Your task to perform on an android device: turn off wifi Image 0: 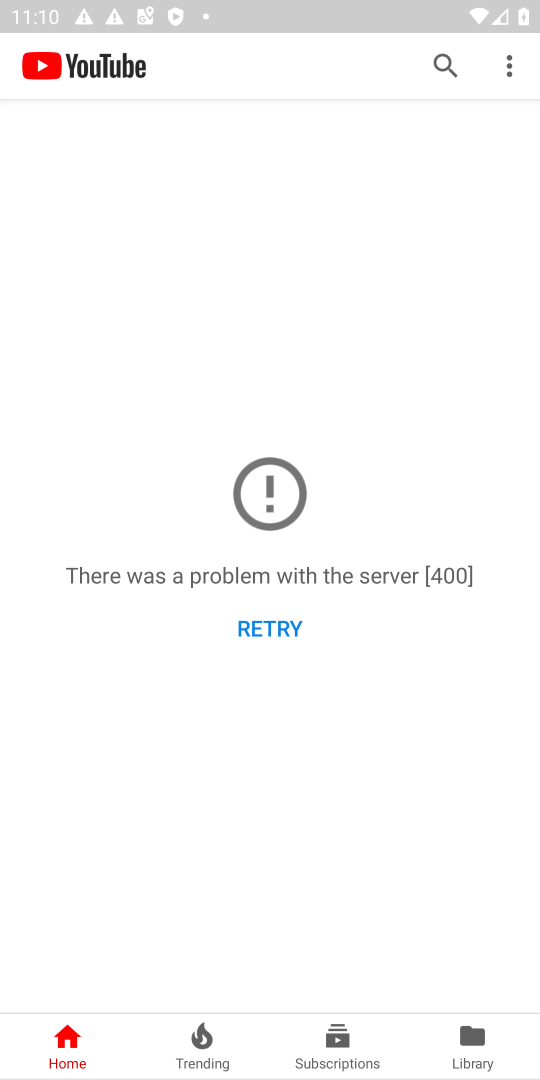
Step 0: press home button
Your task to perform on an android device: turn off wifi Image 1: 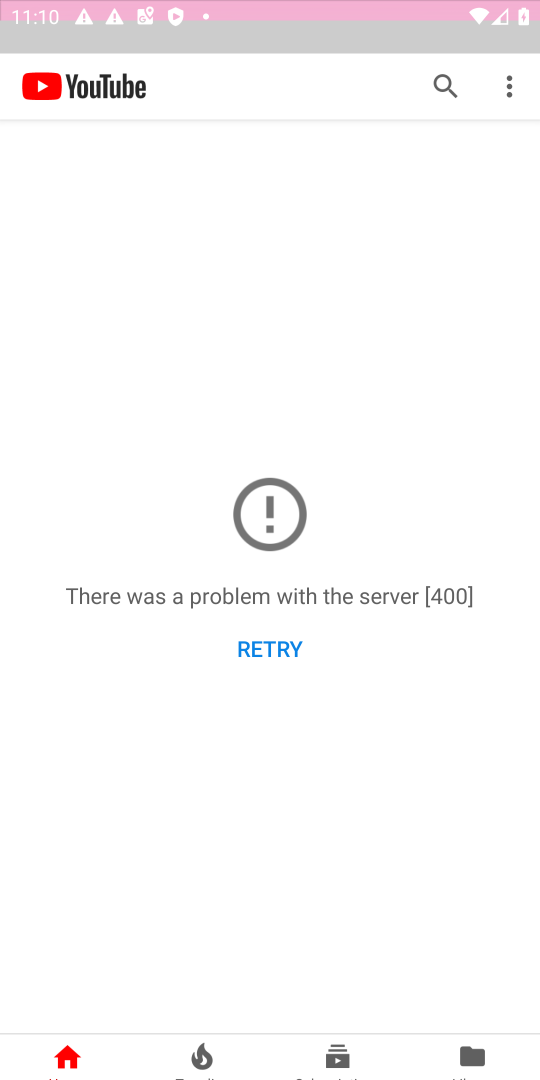
Step 1: press home button
Your task to perform on an android device: turn off wifi Image 2: 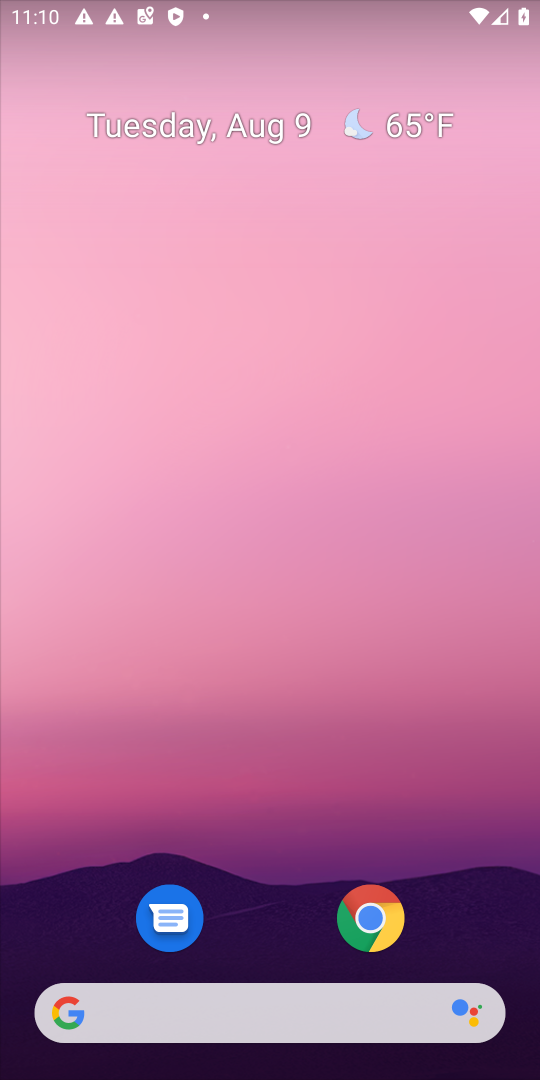
Step 2: press home button
Your task to perform on an android device: turn off wifi Image 3: 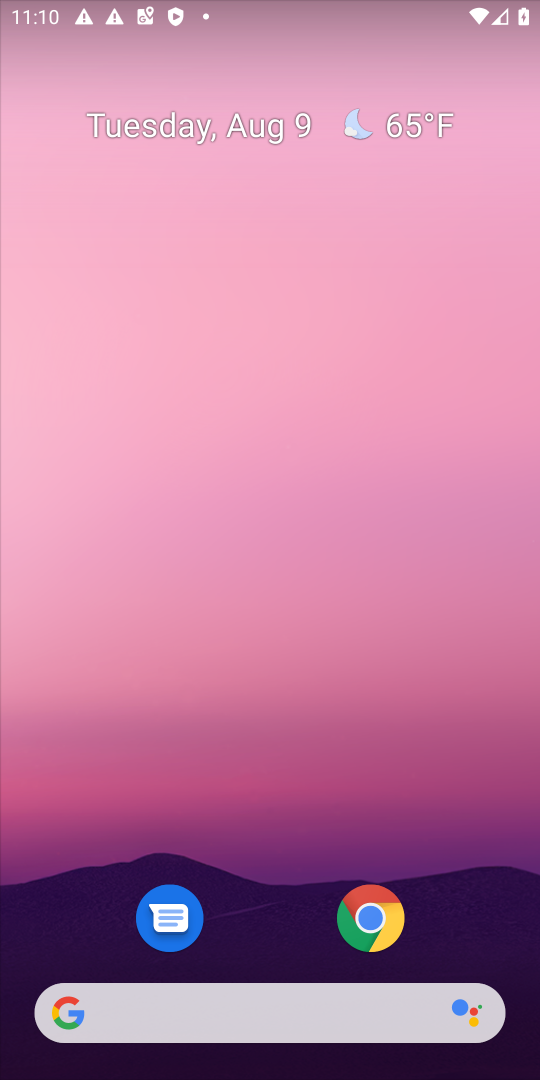
Step 3: drag from (245, 451) to (273, 201)
Your task to perform on an android device: turn off wifi Image 4: 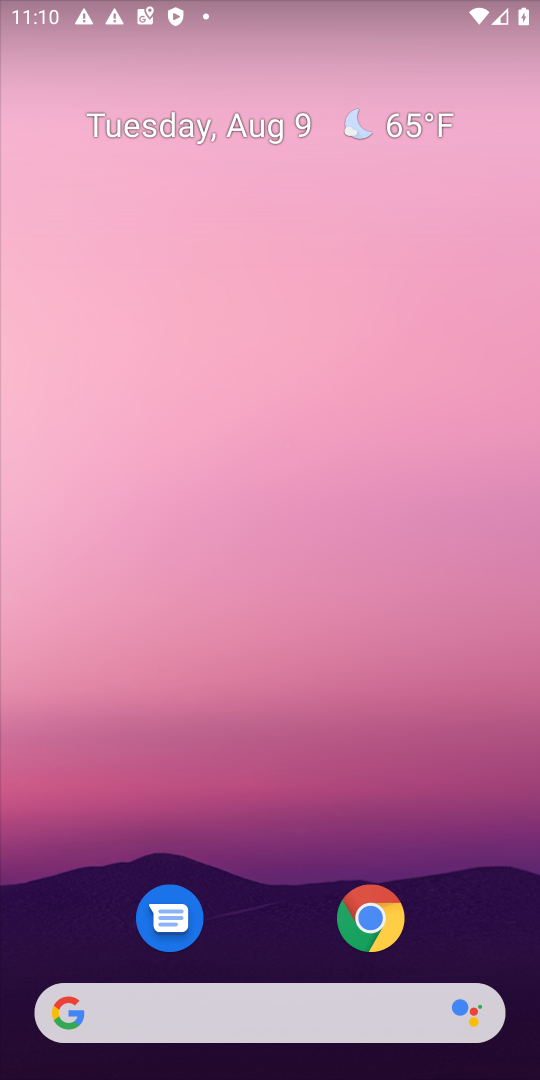
Step 4: drag from (271, 934) to (249, 184)
Your task to perform on an android device: turn off wifi Image 5: 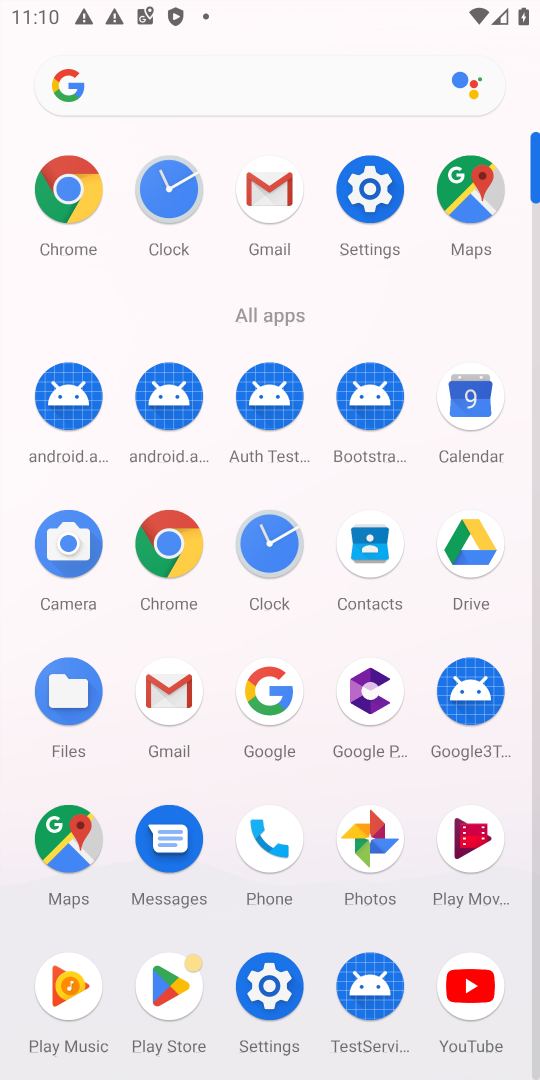
Step 5: click (278, 986)
Your task to perform on an android device: turn off wifi Image 6: 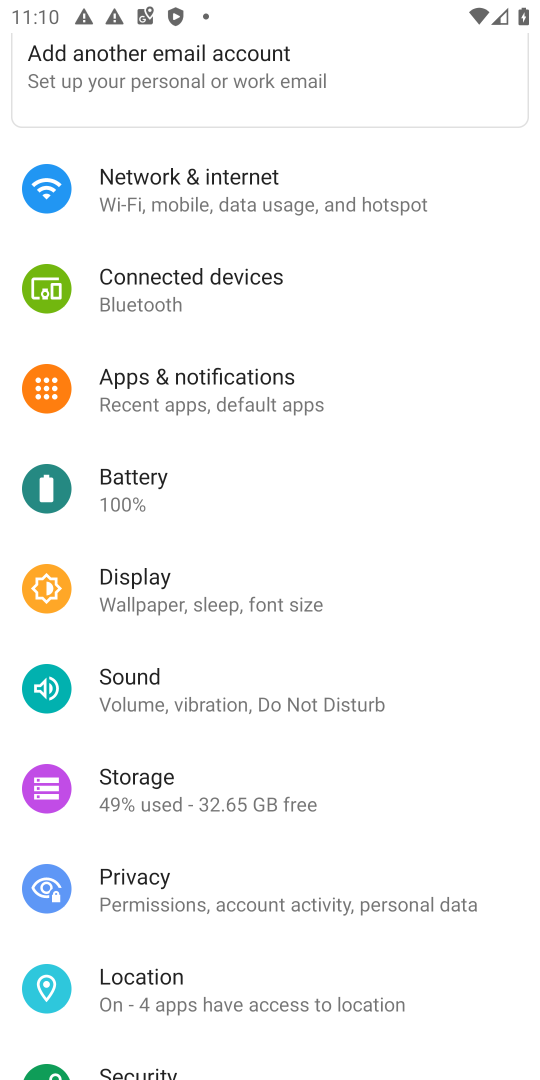
Step 6: click (213, 202)
Your task to perform on an android device: turn off wifi Image 7: 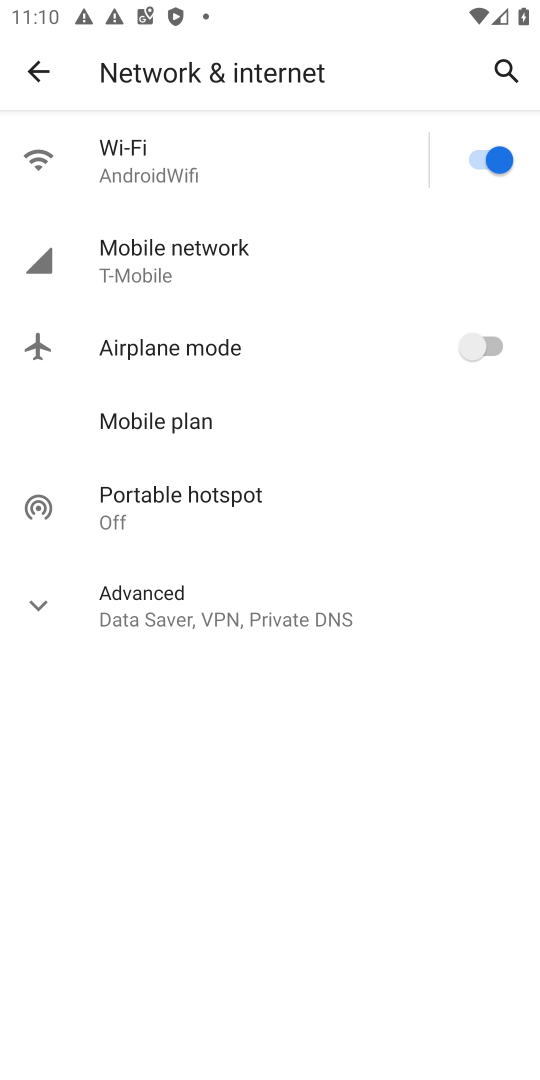
Step 7: click (257, 155)
Your task to perform on an android device: turn off wifi Image 8: 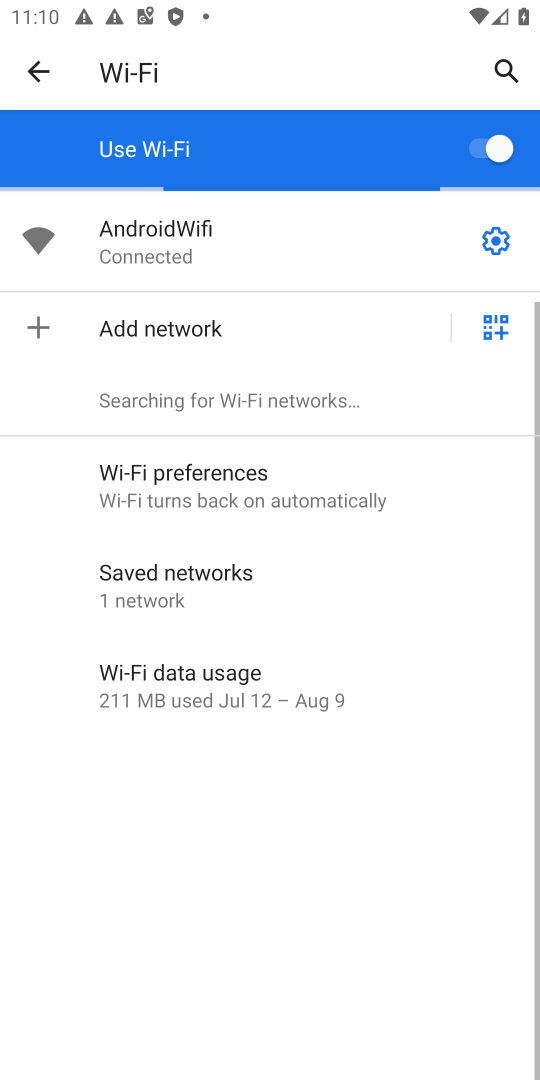
Step 8: click (469, 136)
Your task to perform on an android device: turn off wifi Image 9: 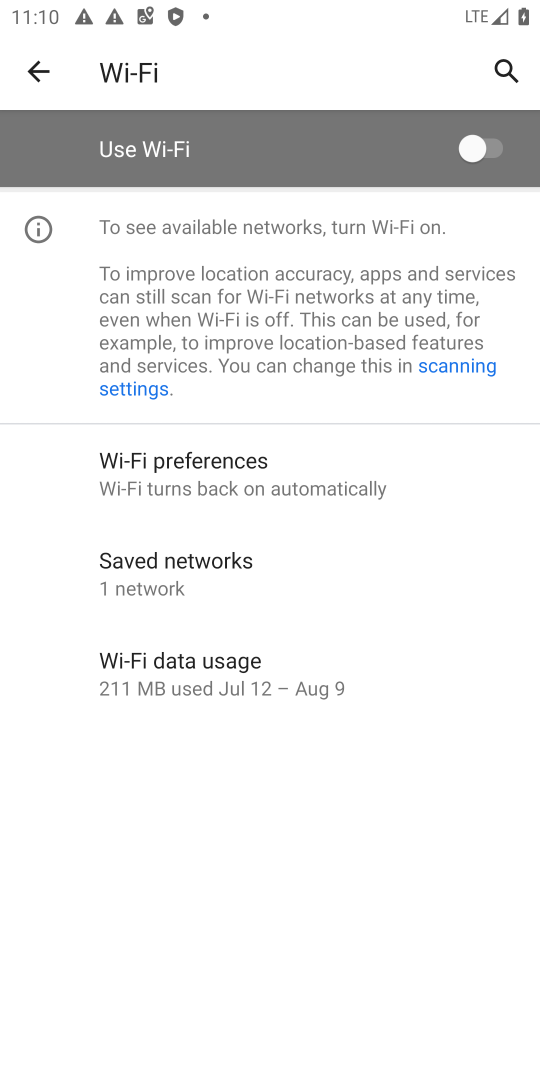
Step 9: task complete